Your task to perform on an android device: change the upload size in google photos Image 0: 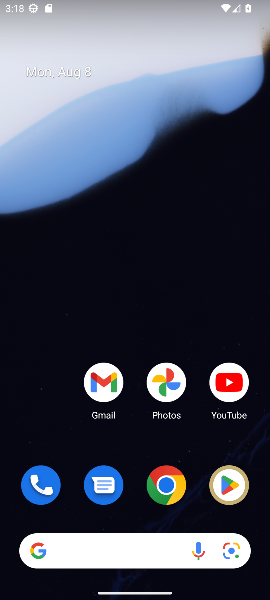
Step 0: drag from (202, 429) to (164, 38)
Your task to perform on an android device: change the upload size in google photos Image 1: 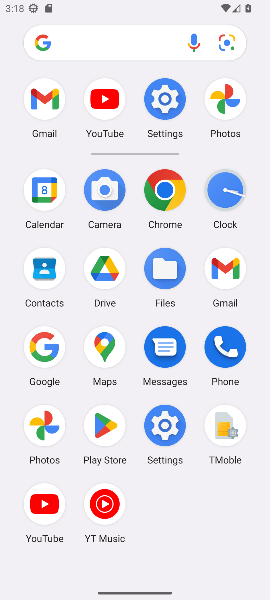
Step 1: click (41, 419)
Your task to perform on an android device: change the upload size in google photos Image 2: 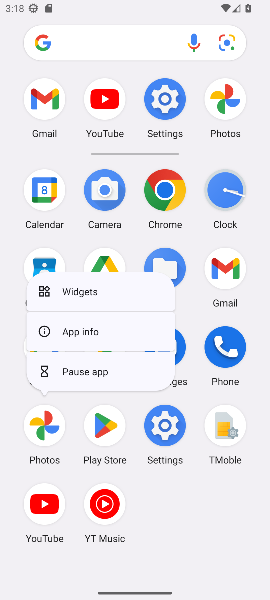
Step 2: click (32, 435)
Your task to perform on an android device: change the upload size in google photos Image 3: 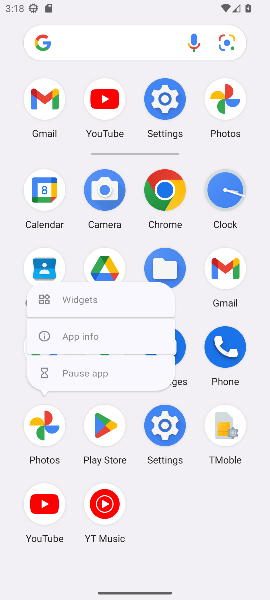
Step 3: click (44, 425)
Your task to perform on an android device: change the upload size in google photos Image 4: 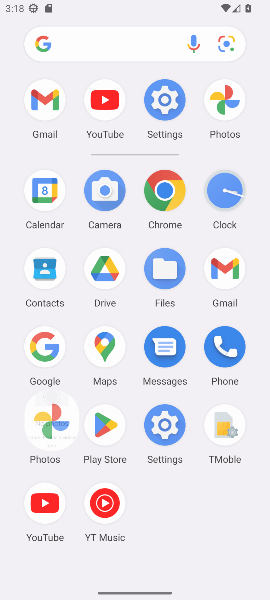
Step 4: click (50, 423)
Your task to perform on an android device: change the upload size in google photos Image 5: 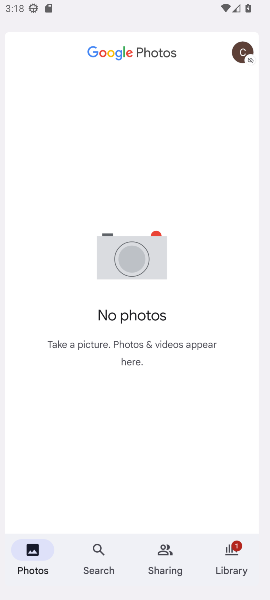
Step 5: click (54, 420)
Your task to perform on an android device: change the upload size in google photos Image 6: 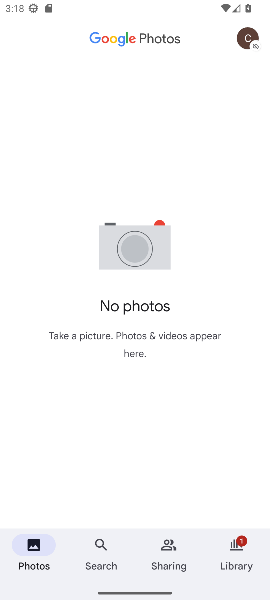
Step 6: click (32, 426)
Your task to perform on an android device: change the upload size in google photos Image 7: 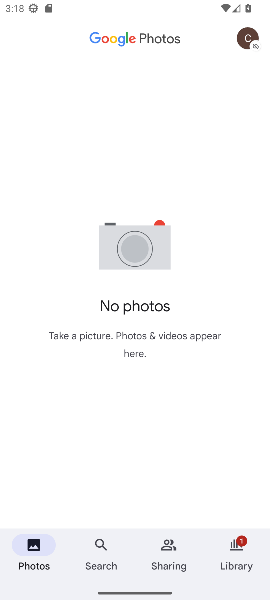
Step 7: click (264, 35)
Your task to perform on an android device: change the upload size in google photos Image 8: 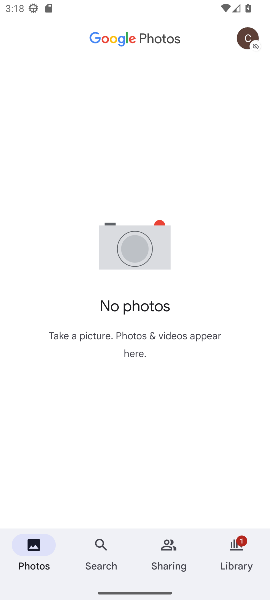
Step 8: click (255, 40)
Your task to perform on an android device: change the upload size in google photos Image 9: 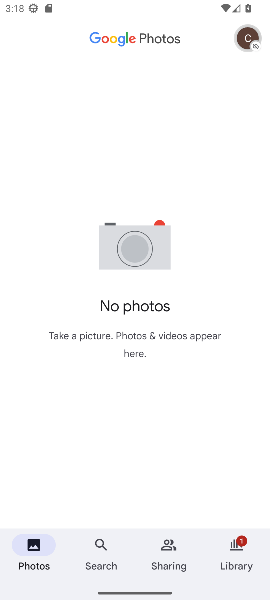
Step 9: click (255, 40)
Your task to perform on an android device: change the upload size in google photos Image 10: 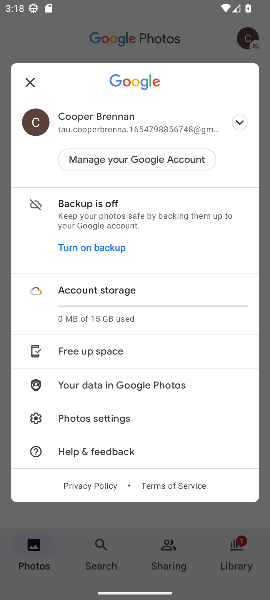
Step 10: click (79, 219)
Your task to perform on an android device: change the upload size in google photos Image 11: 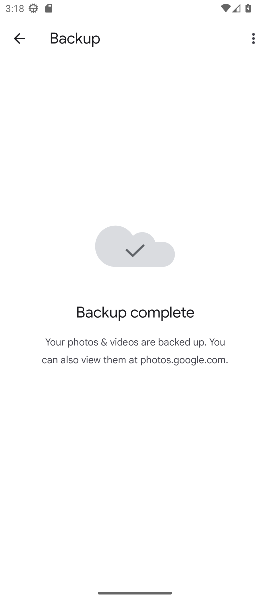
Step 11: click (130, 242)
Your task to perform on an android device: change the upload size in google photos Image 12: 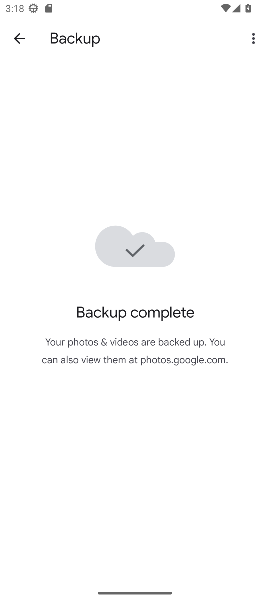
Step 12: click (253, 42)
Your task to perform on an android device: change the upload size in google photos Image 13: 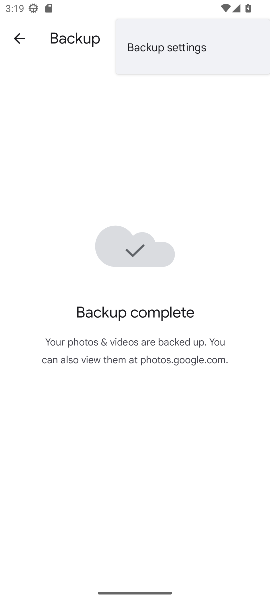
Step 13: click (14, 37)
Your task to perform on an android device: change the upload size in google photos Image 14: 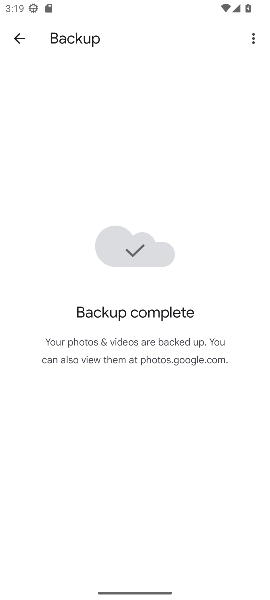
Step 14: click (18, 36)
Your task to perform on an android device: change the upload size in google photos Image 15: 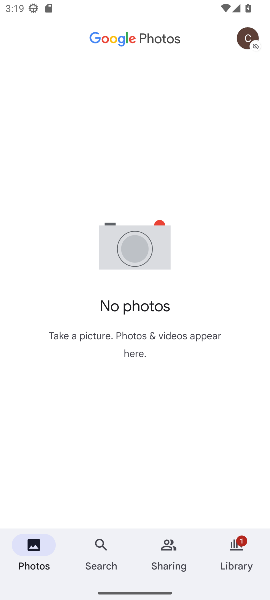
Step 15: click (253, 48)
Your task to perform on an android device: change the upload size in google photos Image 16: 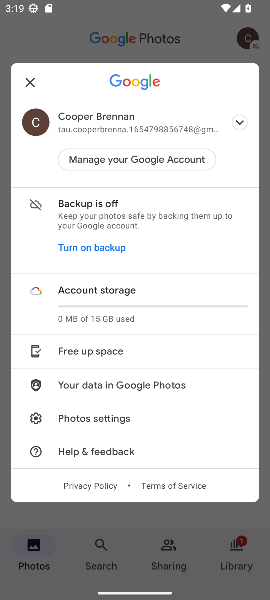
Step 16: click (95, 408)
Your task to perform on an android device: change the upload size in google photos Image 17: 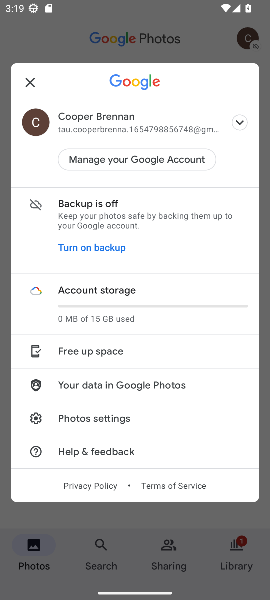
Step 17: click (95, 408)
Your task to perform on an android device: change the upload size in google photos Image 18: 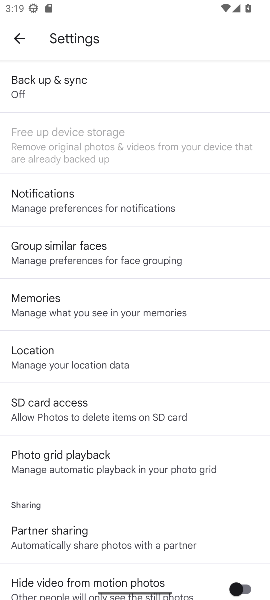
Step 18: click (40, 85)
Your task to perform on an android device: change the upload size in google photos Image 19: 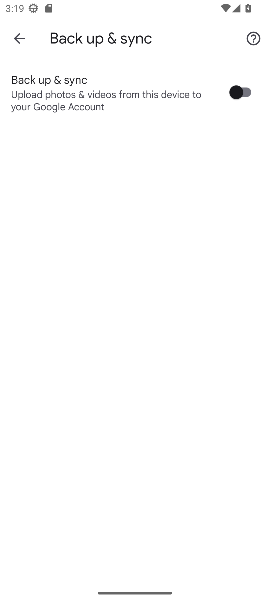
Step 19: click (246, 89)
Your task to perform on an android device: change the upload size in google photos Image 20: 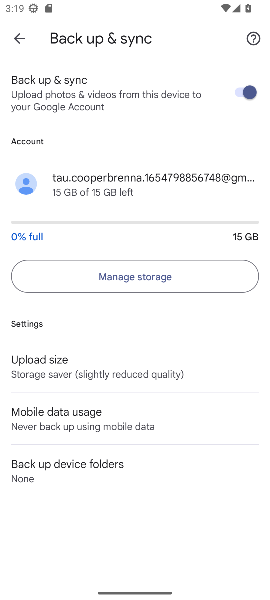
Step 20: click (14, 375)
Your task to perform on an android device: change the upload size in google photos Image 21: 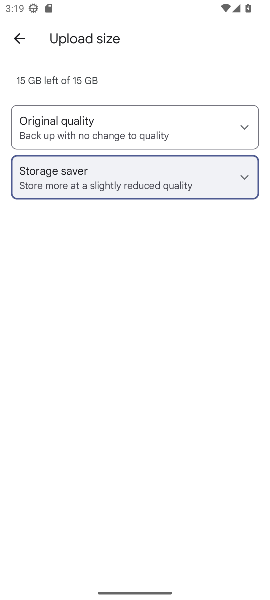
Step 21: click (241, 128)
Your task to perform on an android device: change the upload size in google photos Image 22: 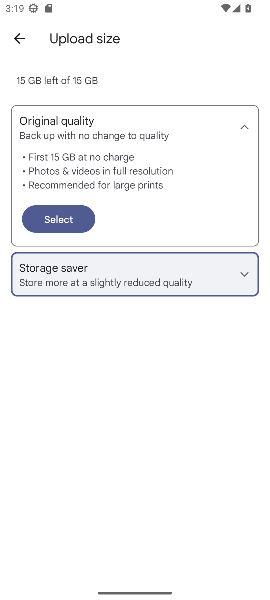
Step 22: click (57, 216)
Your task to perform on an android device: change the upload size in google photos Image 23: 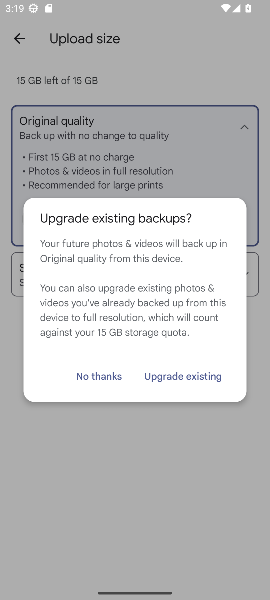
Step 23: click (98, 372)
Your task to perform on an android device: change the upload size in google photos Image 24: 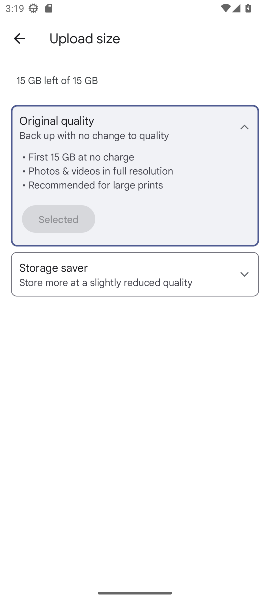
Step 24: click (98, 267)
Your task to perform on an android device: change the upload size in google photos Image 25: 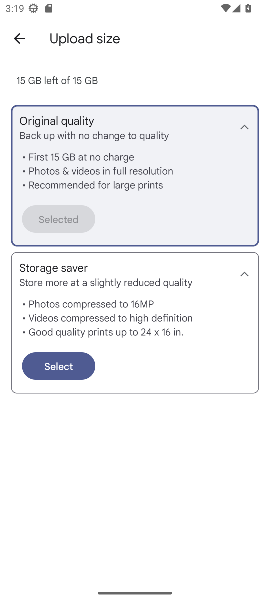
Step 25: click (149, 444)
Your task to perform on an android device: change the upload size in google photos Image 26: 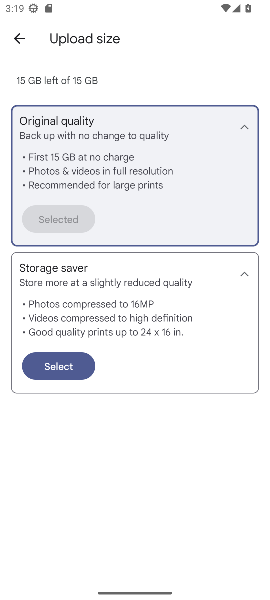
Step 26: click (18, 41)
Your task to perform on an android device: change the upload size in google photos Image 27: 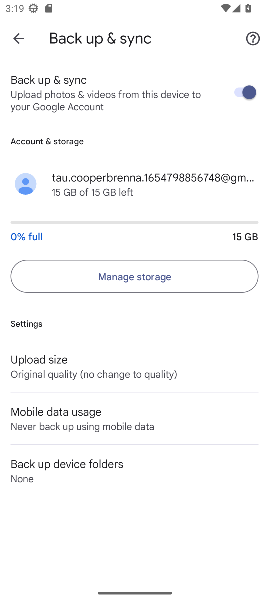
Step 27: task complete